Your task to perform on an android device: Check the weather Image 0: 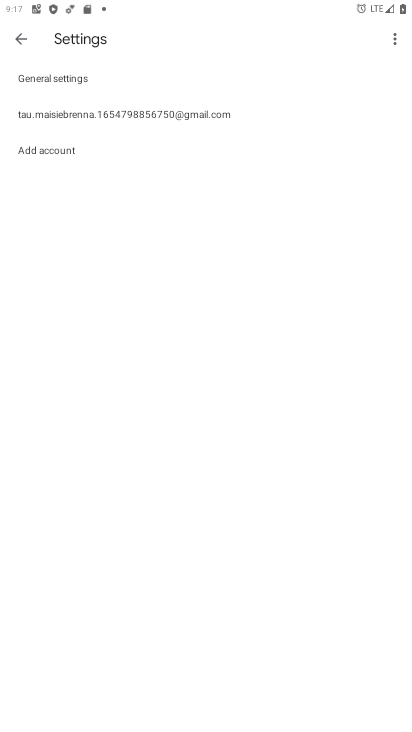
Step 0: press home button
Your task to perform on an android device: Check the weather Image 1: 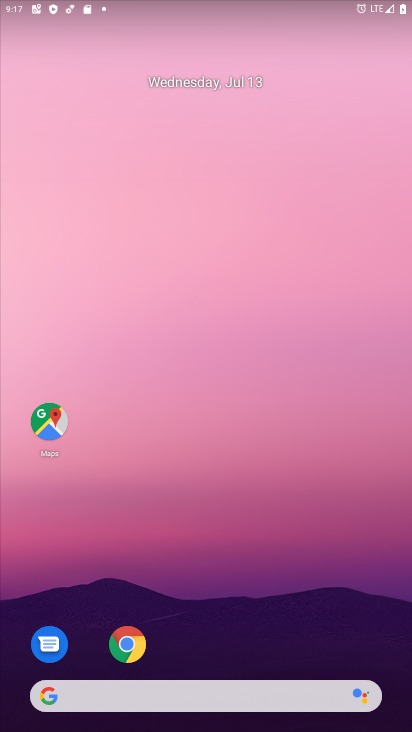
Step 1: drag from (226, 724) to (295, 139)
Your task to perform on an android device: Check the weather Image 2: 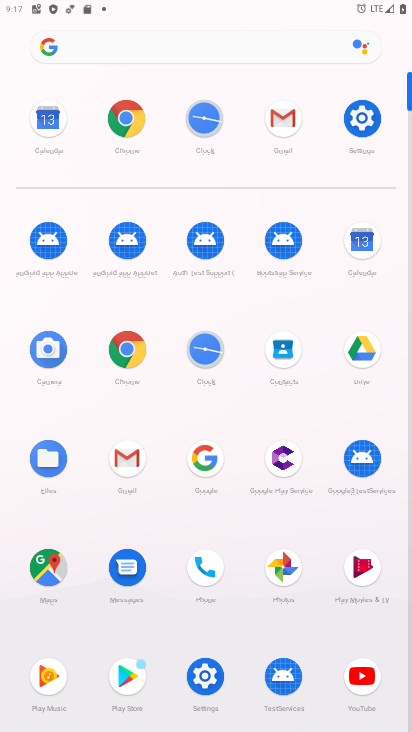
Step 2: click (205, 457)
Your task to perform on an android device: Check the weather Image 3: 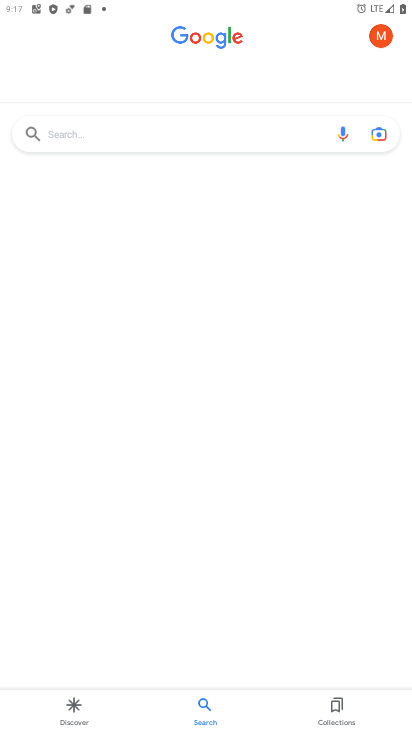
Step 3: click (177, 133)
Your task to perform on an android device: Check the weather Image 4: 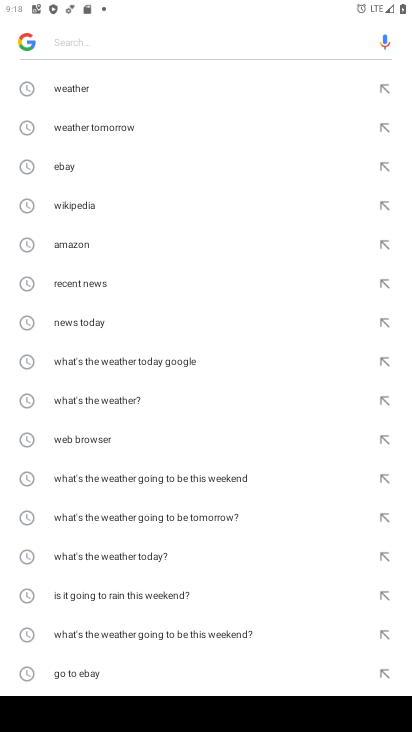
Step 4: click (74, 85)
Your task to perform on an android device: Check the weather Image 5: 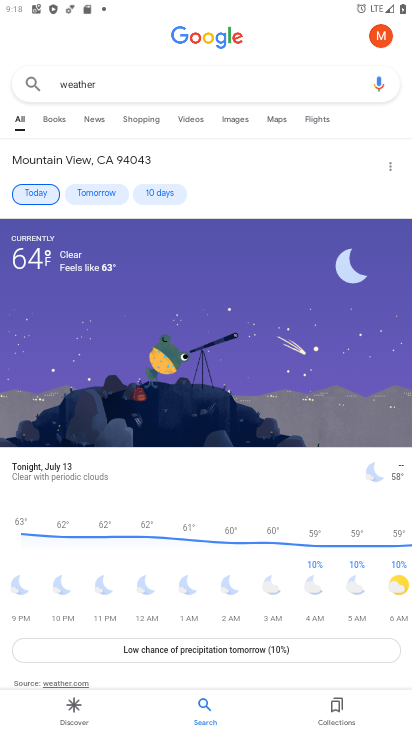
Step 5: click (33, 189)
Your task to perform on an android device: Check the weather Image 6: 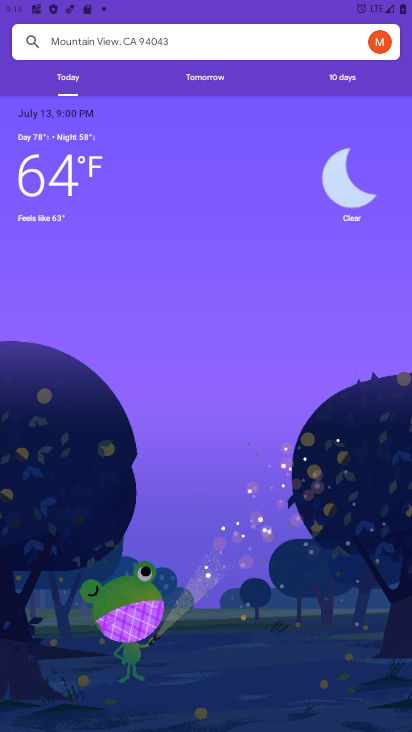
Step 6: task complete